Your task to perform on an android device: change the clock display to analog Image 0: 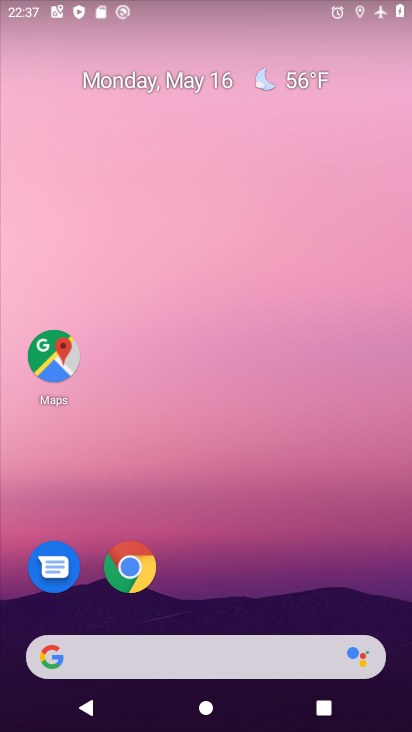
Step 0: drag from (216, 620) to (219, 263)
Your task to perform on an android device: change the clock display to analog Image 1: 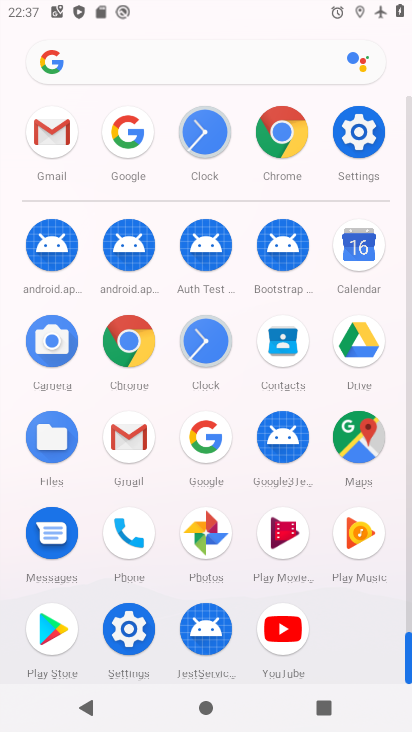
Step 1: click (200, 329)
Your task to perform on an android device: change the clock display to analog Image 2: 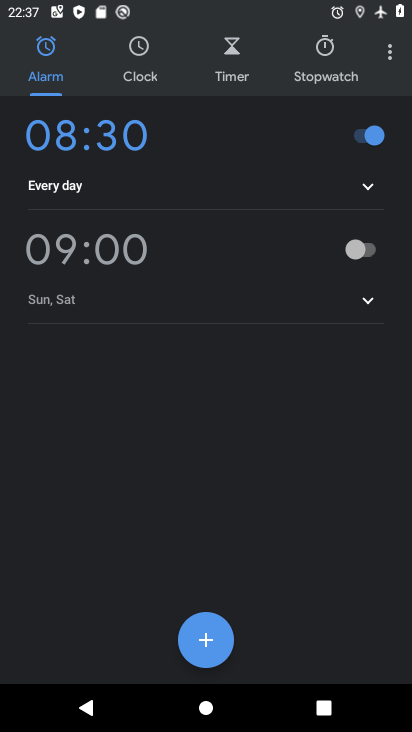
Step 2: click (376, 52)
Your task to perform on an android device: change the clock display to analog Image 3: 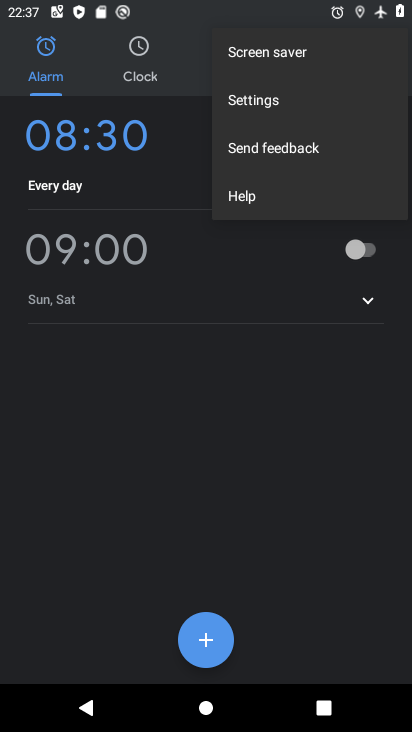
Step 3: click (315, 101)
Your task to perform on an android device: change the clock display to analog Image 4: 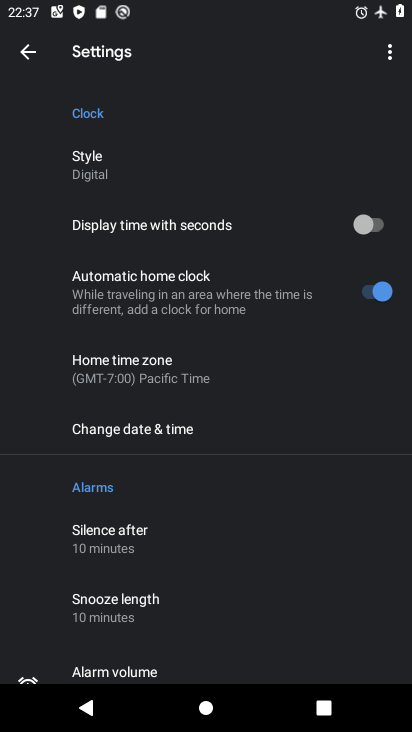
Step 4: drag from (171, 210) to (188, 559)
Your task to perform on an android device: change the clock display to analog Image 5: 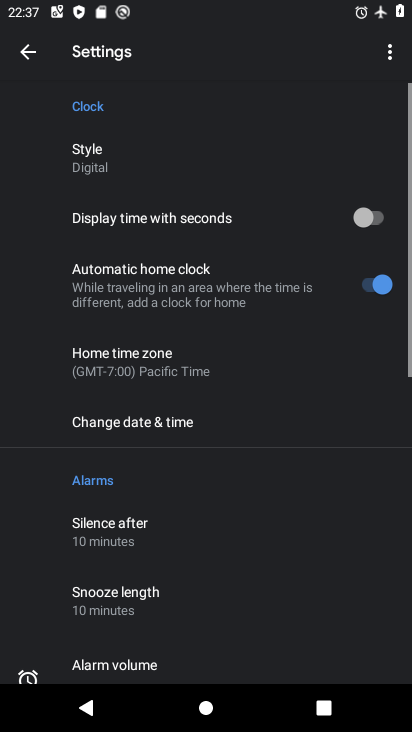
Step 5: click (82, 157)
Your task to perform on an android device: change the clock display to analog Image 6: 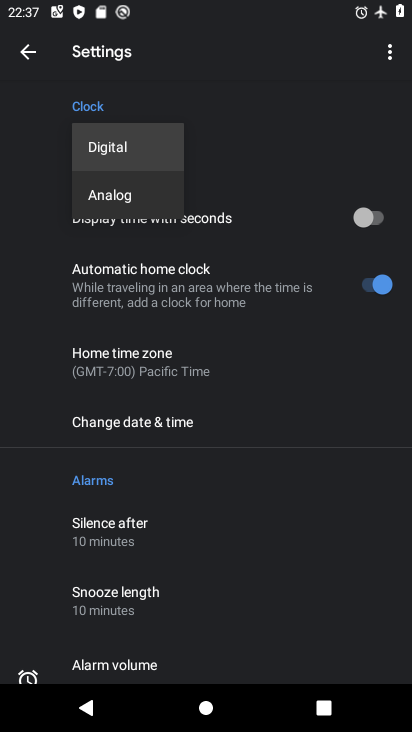
Step 6: click (114, 195)
Your task to perform on an android device: change the clock display to analog Image 7: 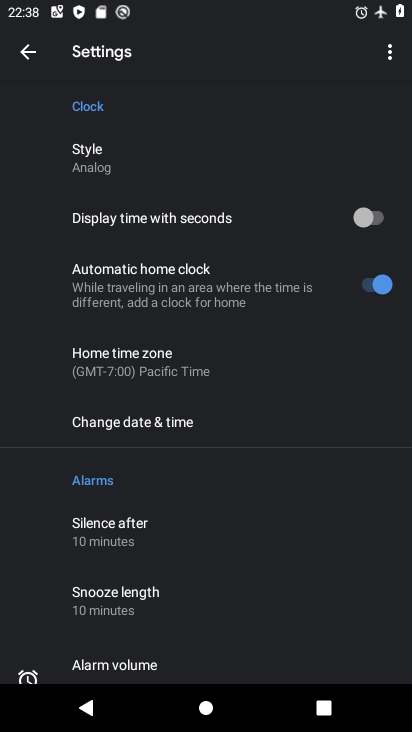
Step 7: task complete